Your task to perform on an android device: Open Chrome and go to the settings page Image 0: 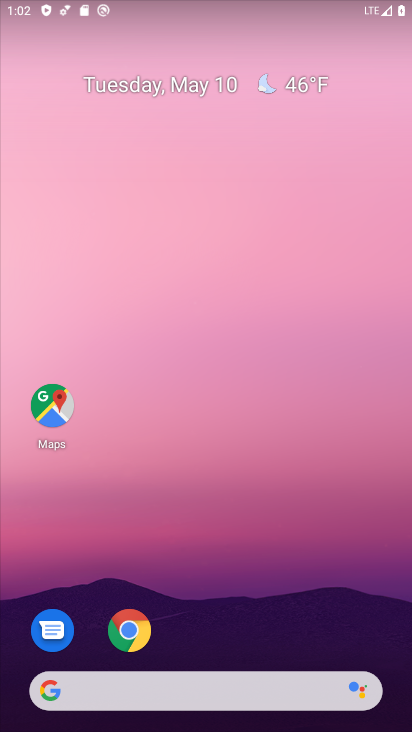
Step 0: drag from (210, 648) to (218, 0)
Your task to perform on an android device: Open Chrome and go to the settings page Image 1: 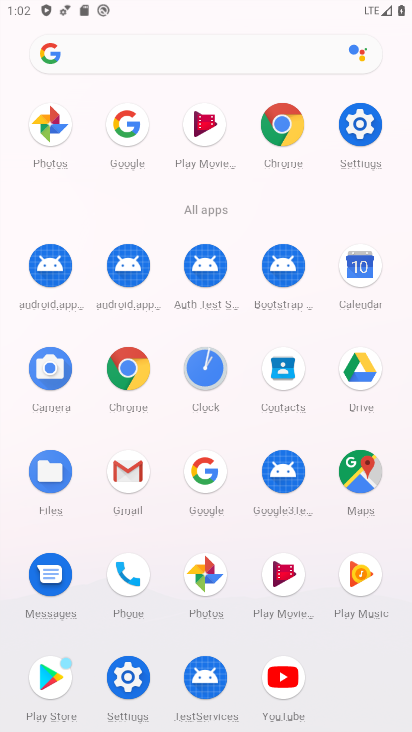
Step 1: click (121, 368)
Your task to perform on an android device: Open Chrome and go to the settings page Image 2: 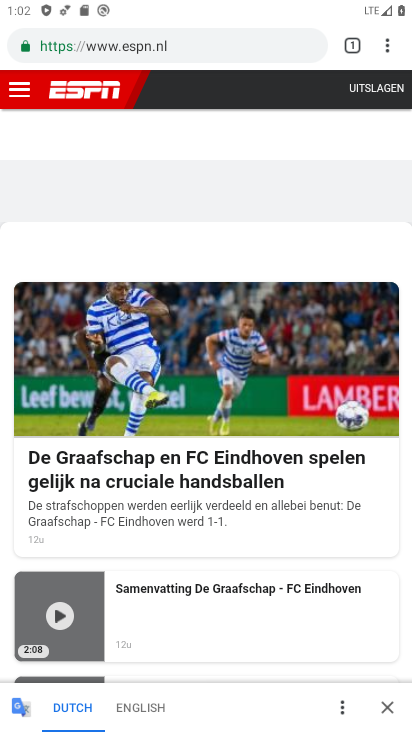
Step 2: click (388, 42)
Your task to perform on an android device: Open Chrome and go to the settings page Image 3: 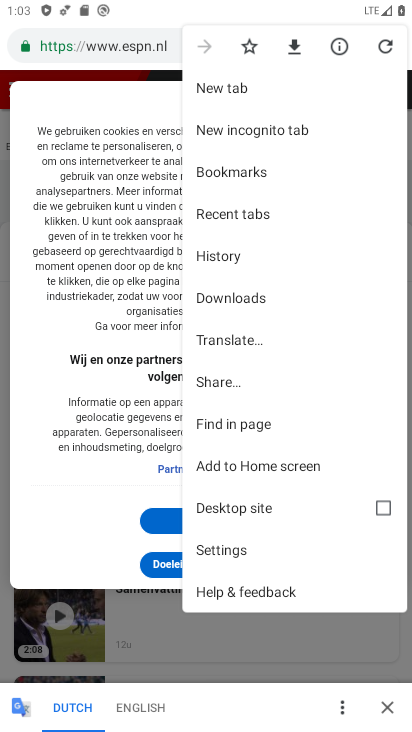
Step 3: click (231, 554)
Your task to perform on an android device: Open Chrome and go to the settings page Image 4: 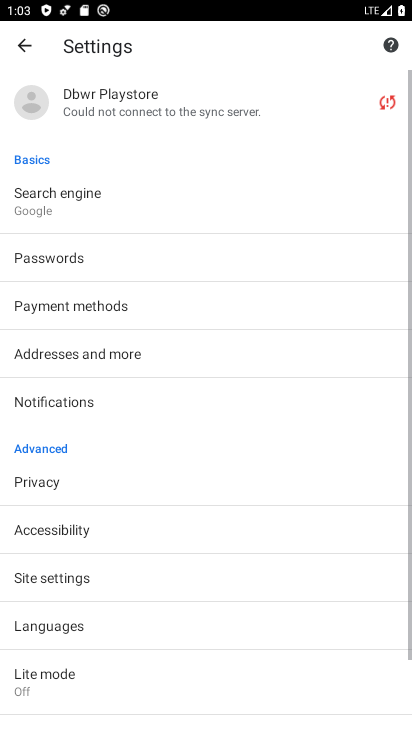
Step 4: task complete